Your task to perform on an android device: set the timer Image 0: 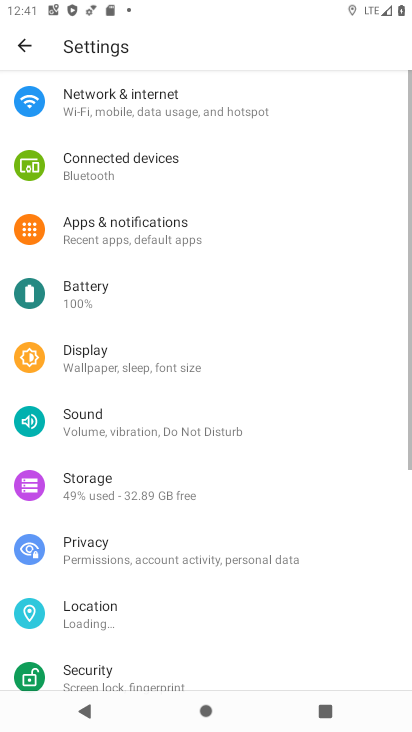
Step 0: press home button
Your task to perform on an android device: set the timer Image 1: 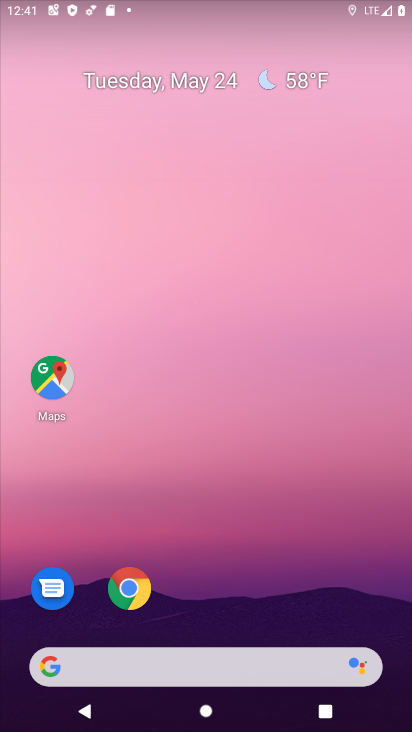
Step 1: drag from (208, 604) to (213, 80)
Your task to perform on an android device: set the timer Image 2: 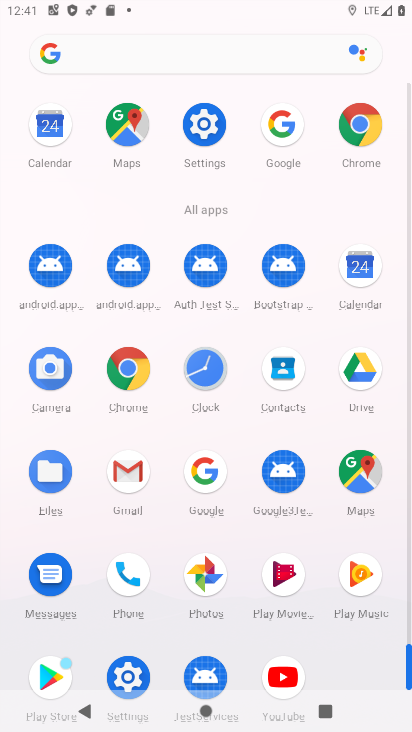
Step 2: click (201, 374)
Your task to perform on an android device: set the timer Image 3: 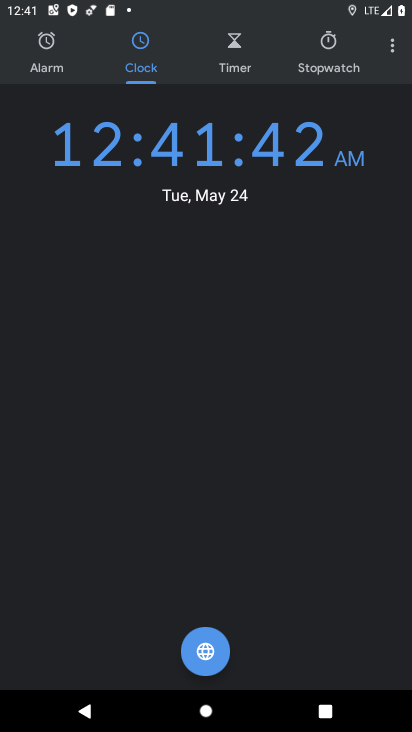
Step 3: click (231, 70)
Your task to perform on an android device: set the timer Image 4: 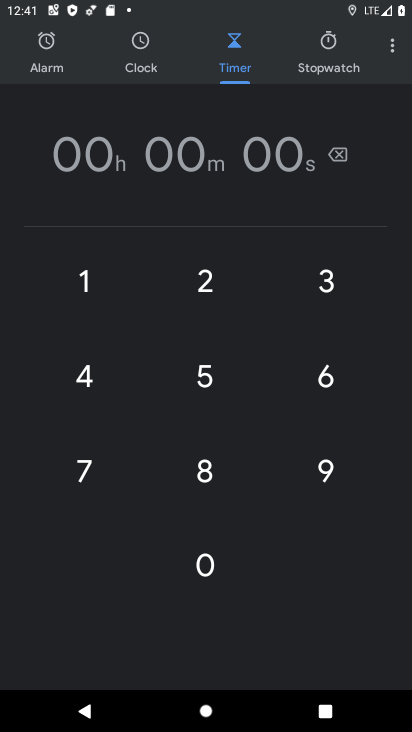
Step 4: click (202, 284)
Your task to perform on an android device: set the timer Image 5: 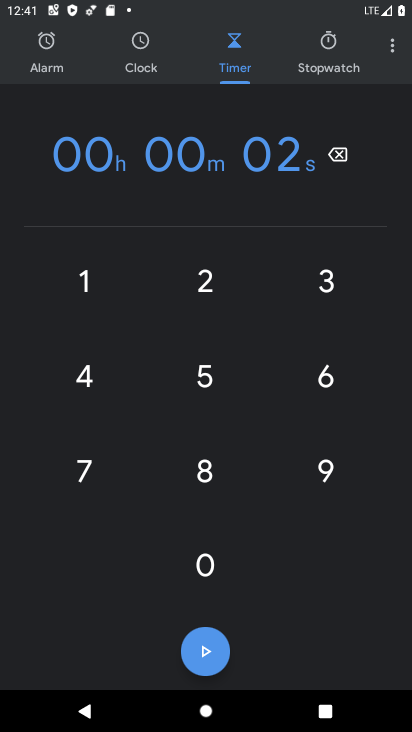
Step 5: click (206, 561)
Your task to perform on an android device: set the timer Image 6: 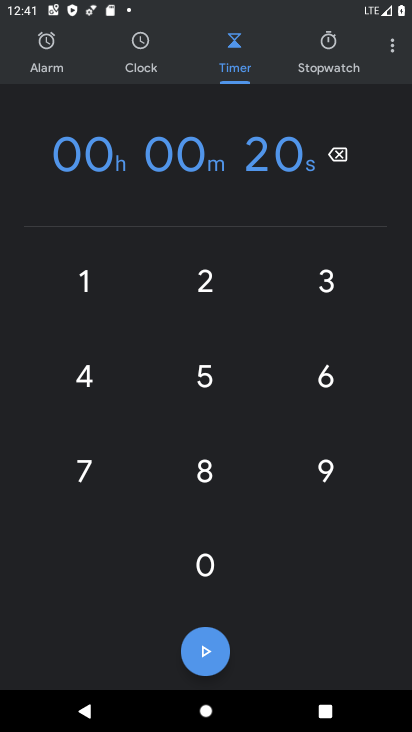
Step 6: click (200, 281)
Your task to perform on an android device: set the timer Image 7: 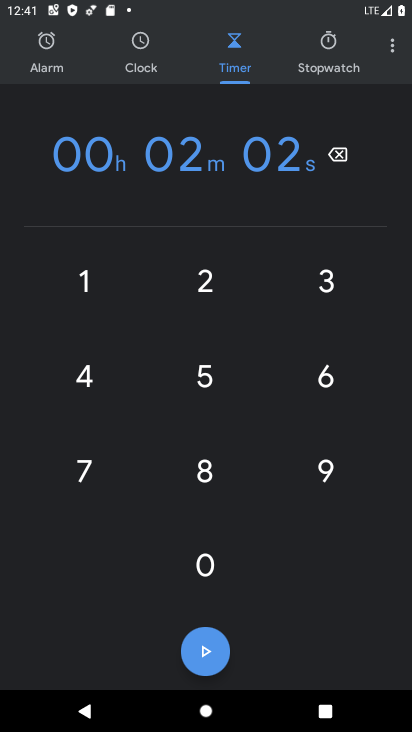
Step 7: click (208, 562)
Your task to perform on an android device: set the timer Image 8: 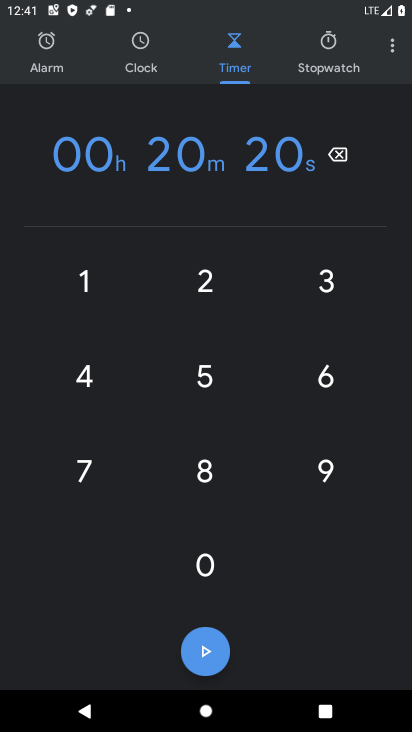
Step 8: click (202, 658)
Your task to perform on an android device: set the timer Image 9: 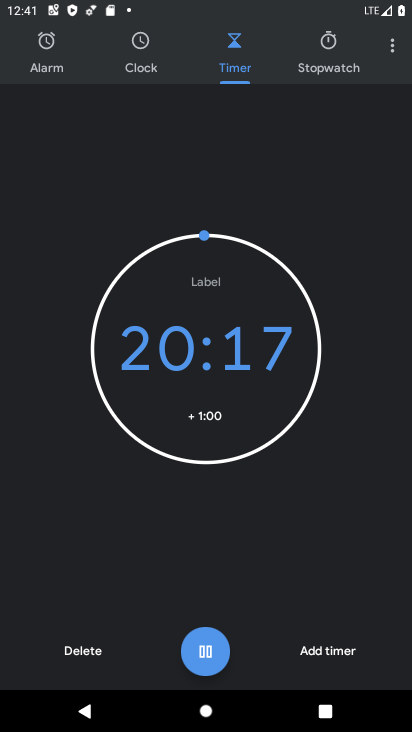
Step 9: click (317, 644)
Your task to perform on an android device: set the timer Image 10: 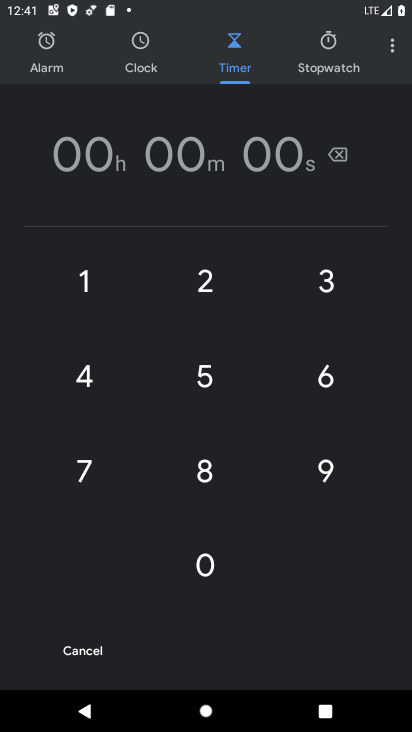
Step 10: task complete